Your task to perform on an android device: Open maps Image 0: 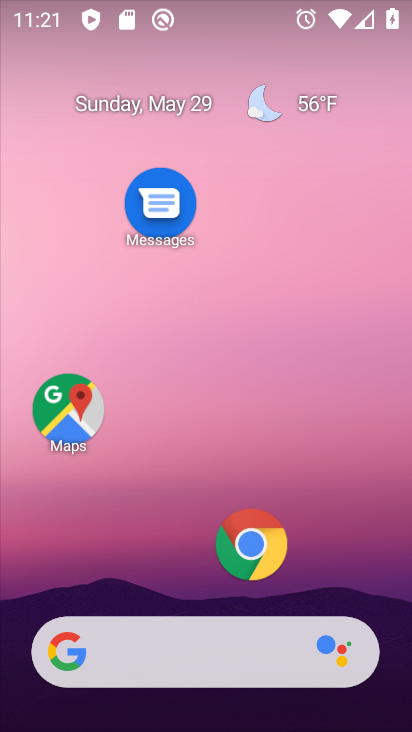
Step 0: drag from (202, 586) to (203, 1)
Your task to perform on an android device: Open maps Image 1: 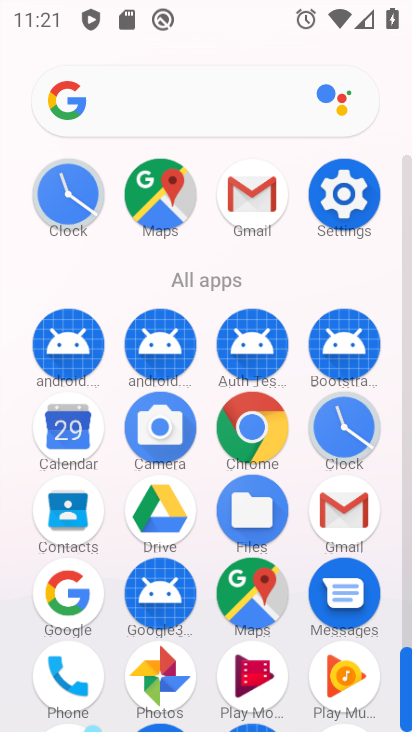
Step 1: click (160, 186)
Your task to perform on an android device: Open maps Image 2: 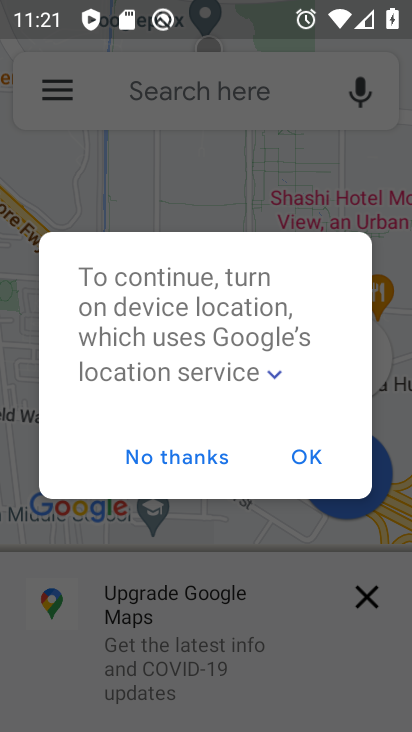
Step 2: click (305, 451)
Your task to perform on an android device: Open maps Image 3: 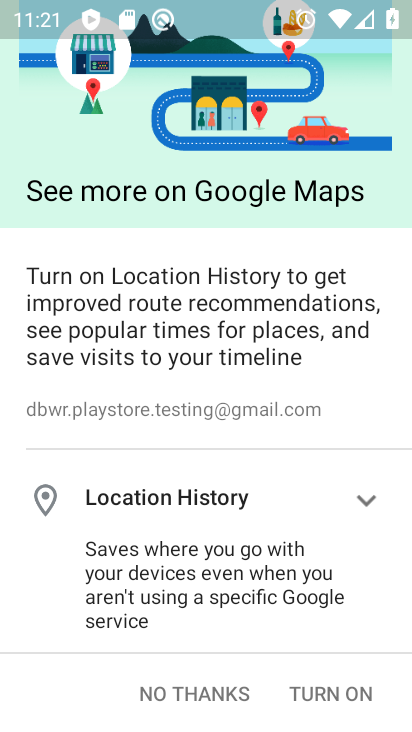
Step 3: click (328, 691)
Your task to perform on an android device: Open maps Image 4: 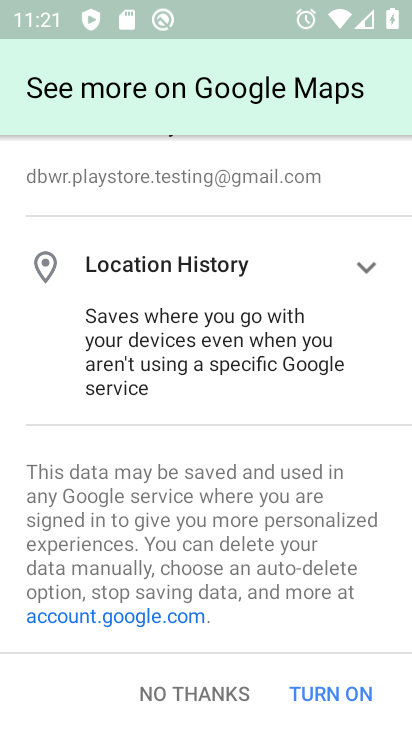
Step 4: click (329, 697)
Your task to perform on an android device: Open maps Image 5: 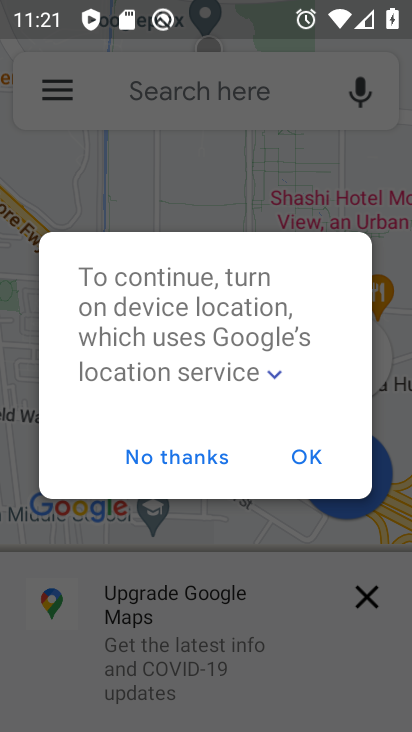
Step 5: click (305, 459)
Your task to perform on an android device: Open maps Image 6: 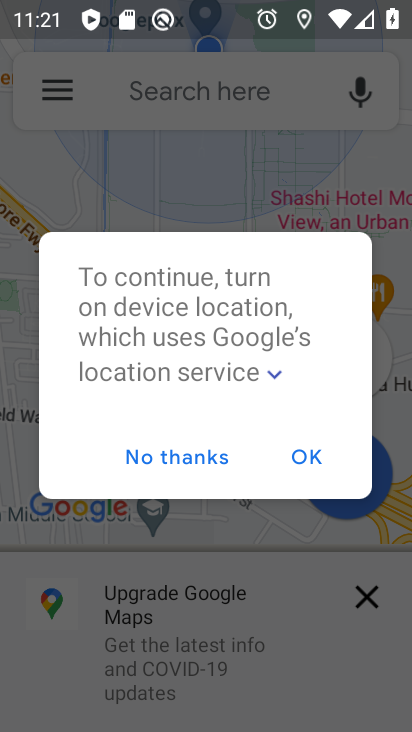
Step 6: click (308, 460)
Your task to perform on an android device: Open maps Image 7: 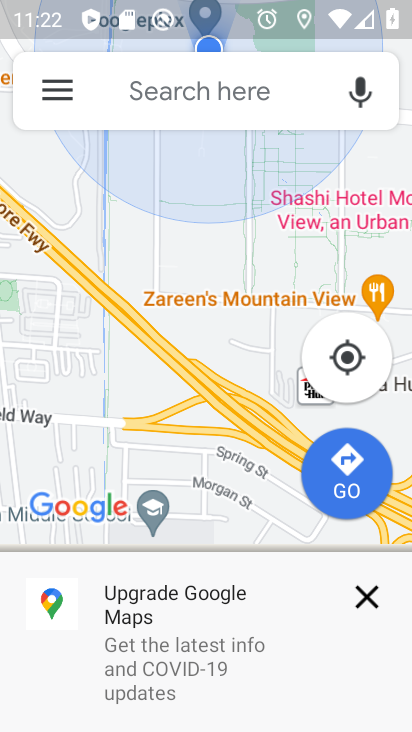
Step 7: click (360, 599)
Your task to perform on an android device: Open maps Image 8: 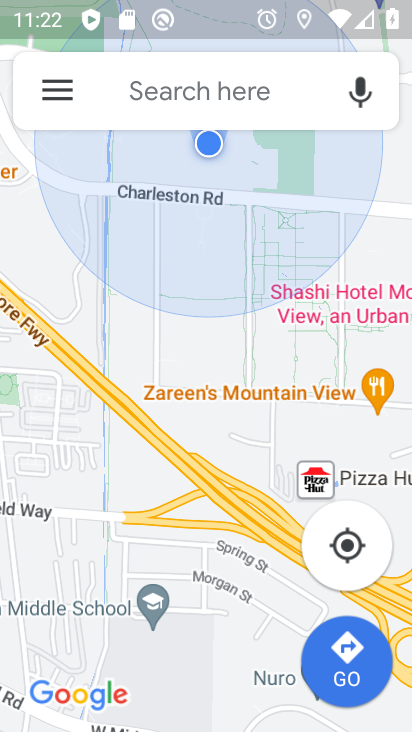
Step 8: task complete